Your task to perform on an android device: turn on wifi Image 0: 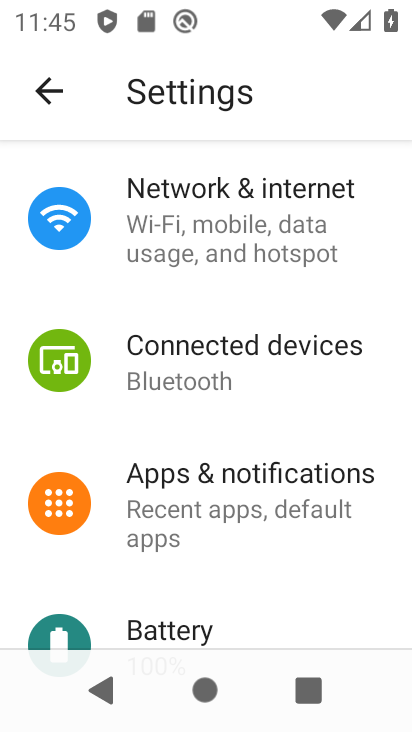
Step 0: click (208, 250)
Your task to perform on an android device: turn on wifi Image 1: 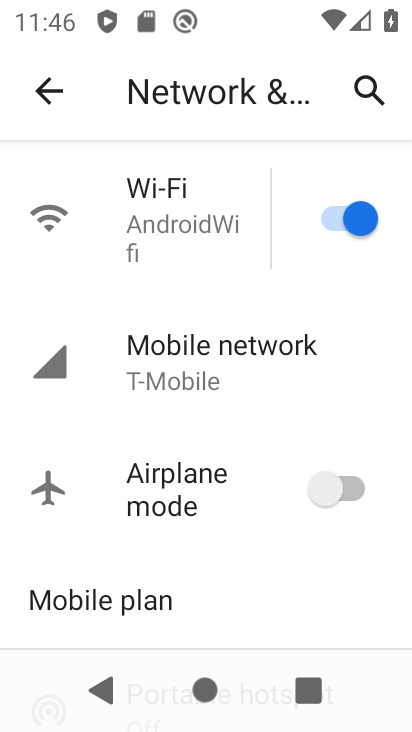
Step 1: task complete